Your task to perform on an android device: Do I have any events this weekend? Image 0: 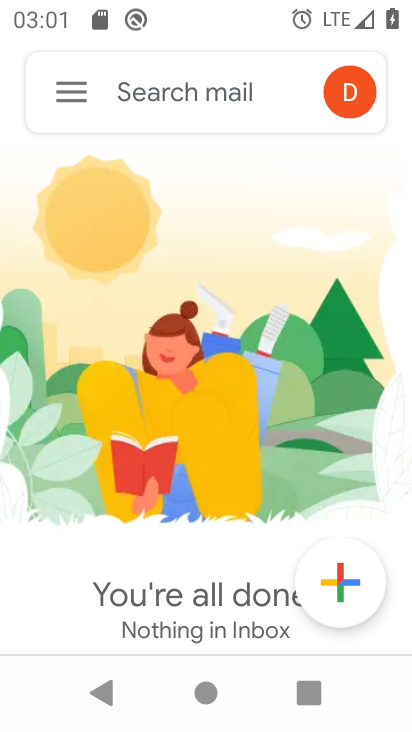
Step 0: press home button
Your task to perform on an android device: Do I have any events this weekend? Image 1: 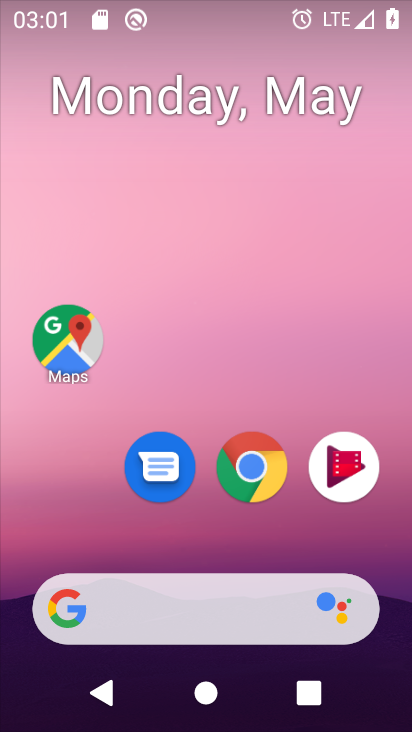
Step 1: drag from (223, 453) to (240, 246)
Your task to perform on an android device: Do I have any events this weekend? Image 2: 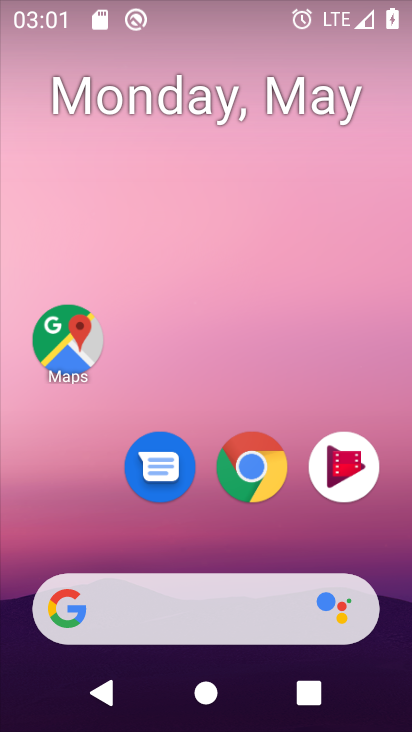
Step 2: drag from (251, 319) to (266, 238)
Your task to perform on an android device: Do I have any events this weekend? Image 3: 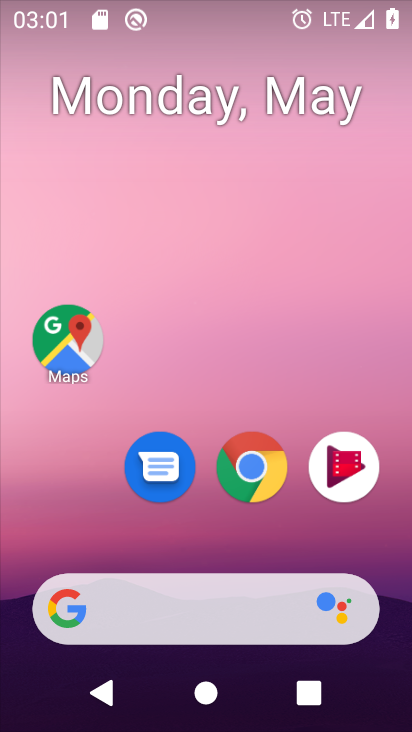
Step 3: drag from (202, 575) to (249, 187)
Your task to perform on an android device: Do I have any events this weekend? Image 4: 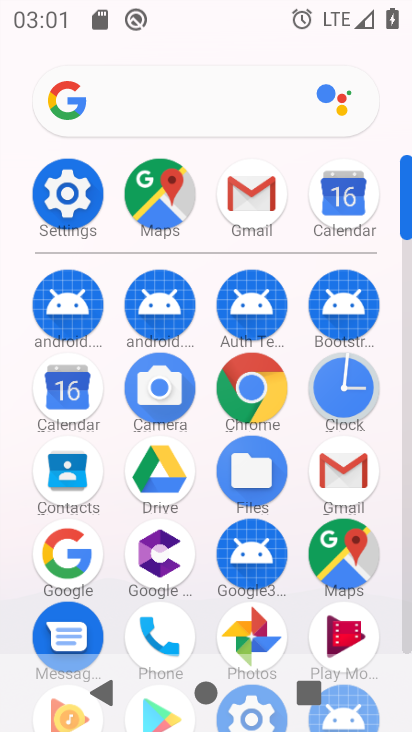
Step 4: click (62, 400)
Your task to perform on an android device: Do I have any events this weekend? Image 5: 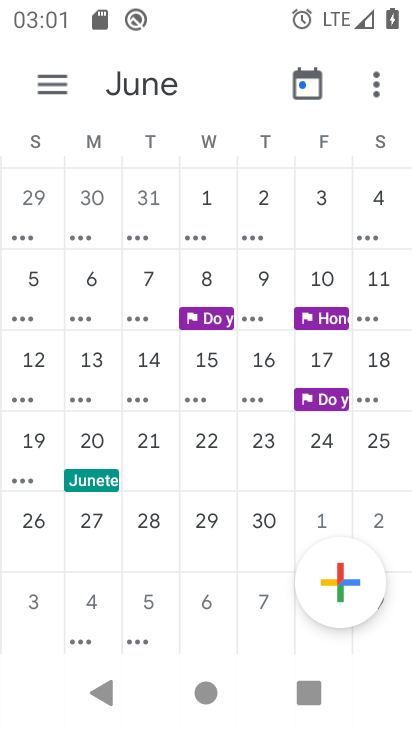
Step 5: click (37, 65)
Your task to perform on an android device: Do I have any events this weekend? Image 6: 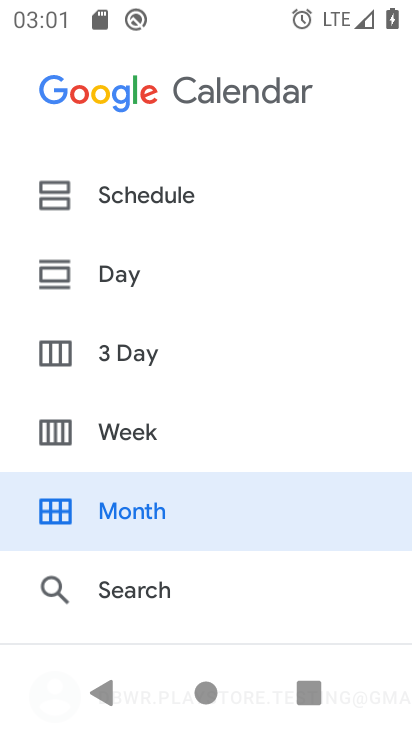
Step 6: click (107, 502)
Your task to perform on an android device: Do I have any events this weekend? Image 7: 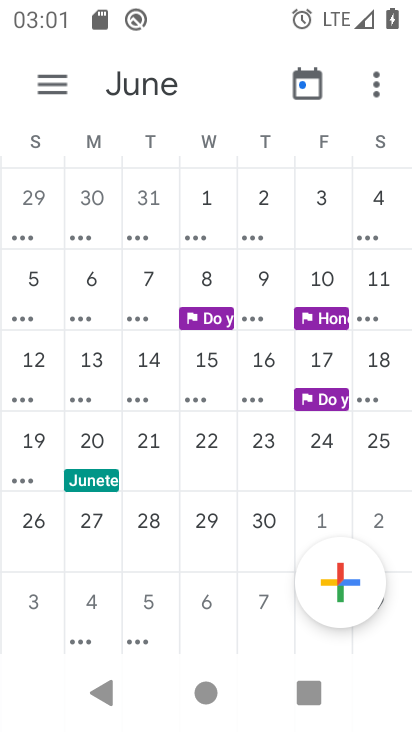
Step 7: drag from (79, 236) to (409, 314)
Your task to perform on an android device: Do I have any events this weekend? Image 8: 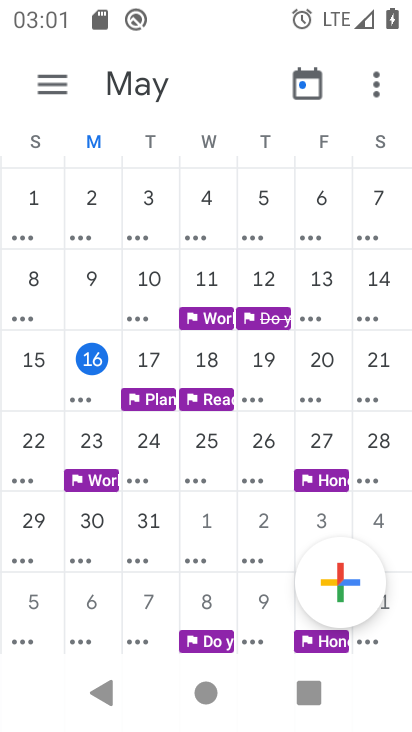
Step 8: click (192, 379)
Your task to perform on an android device: Do I have any events this weekend? Image 9: 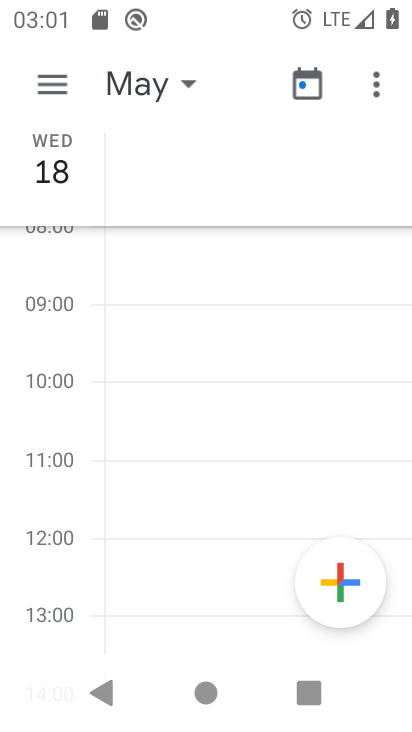
Step 9: task complete